Your task to perform on an android device: Turn off the flashlight Image 0: 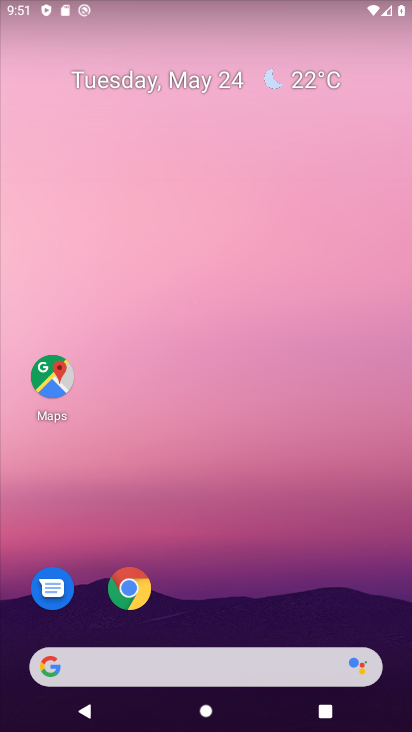
Step 0: drag from (233, 628) to (221, 176)
Your task to perform on an android device: Turn off the flashlight Image 1: 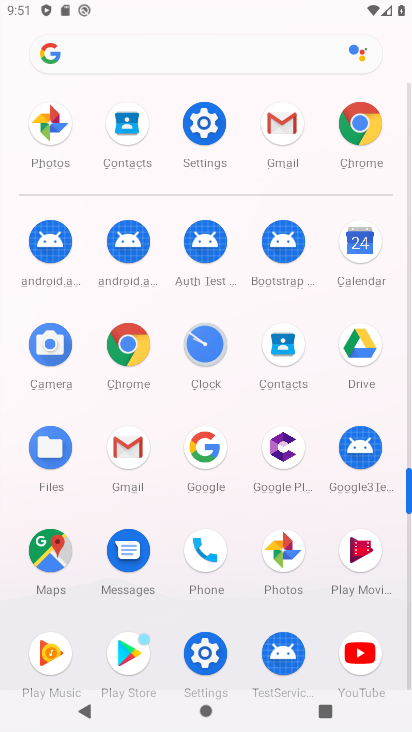
Step 1: click (208, 115)
Your task to perform on an android device: Turn off the flashlight Image 2: 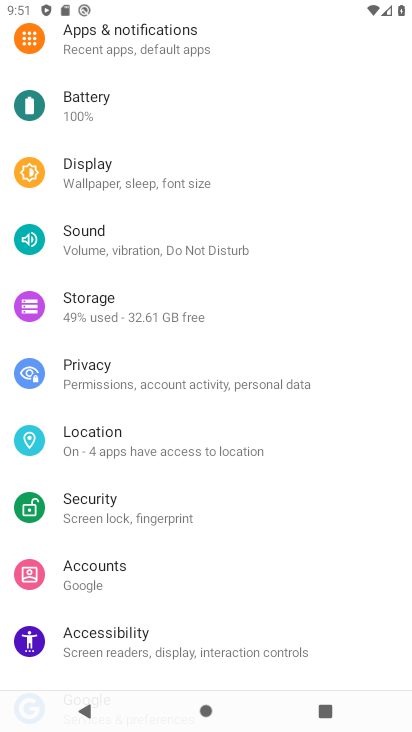
Step 2: task complete